Your task to perform on an android device: turn smart compose on in the gmail app Image 0: 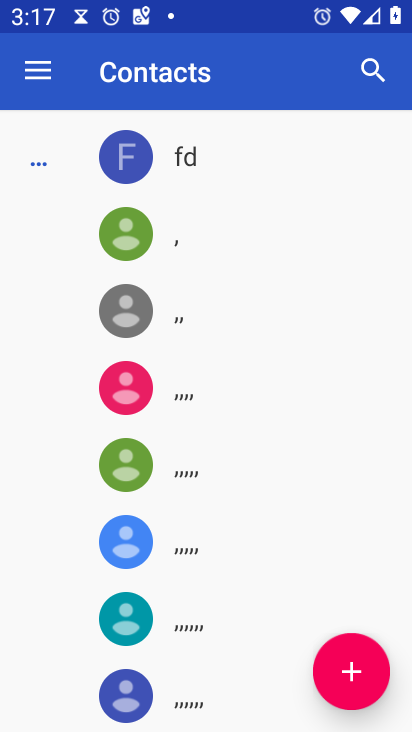
Step 0: press back button
Your task to perform on an android device: turn smart compose on in the gmail app Image 1: 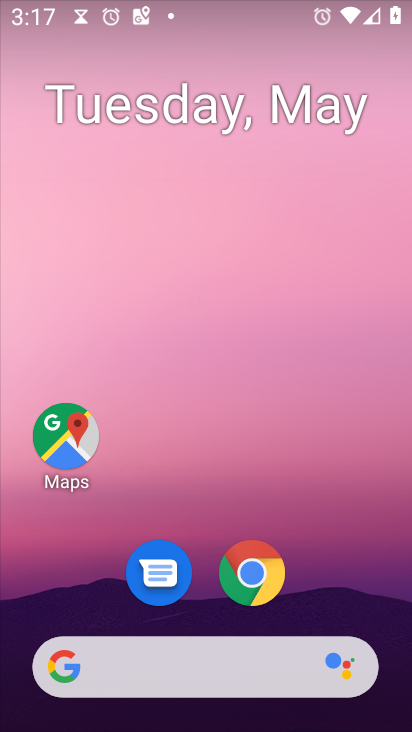
Step 1: drag from (326, 552) to (233, 27)
Your task to perform on an android device: turn smart compose on in the gmail app Image 2: 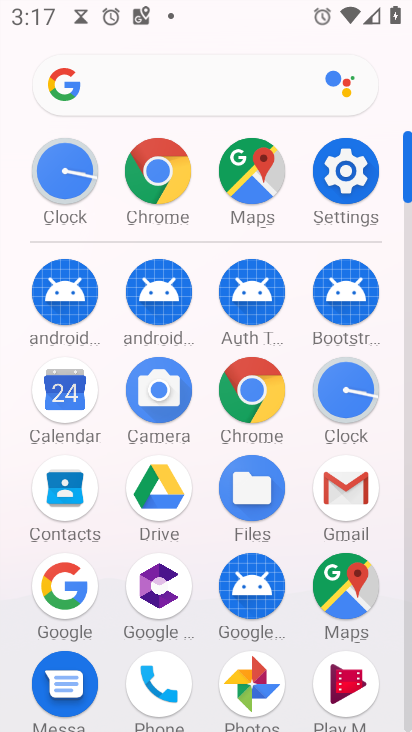
Step 2: drag from (10, 588) to (14, 289)
Your task to perform on an android device: turn smart compose on in the gmail app Image 3: 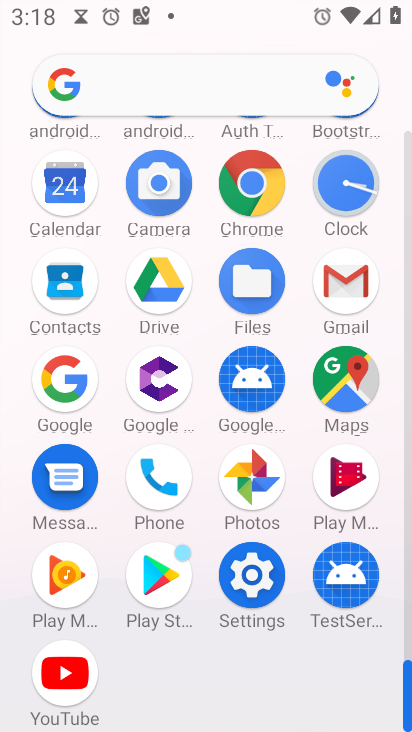
Step 3: click (346, 274)
Your task to perform on an android device: turn smart compose on in the gmail app Image 4: 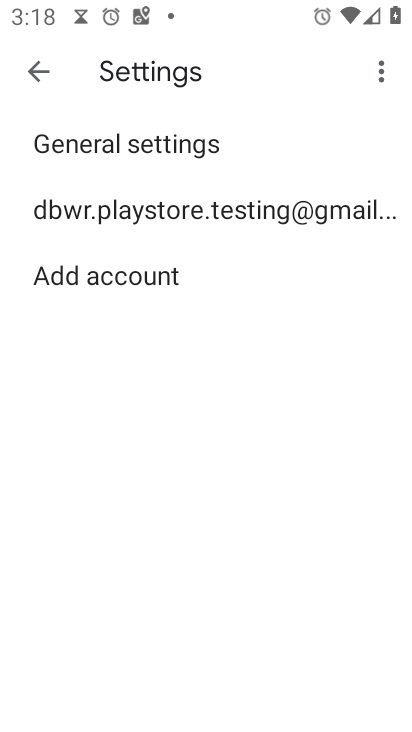
Step 4: click (198, 203)
Your task to perform on an android device: turn smart compose on in the gmail app Image 5: 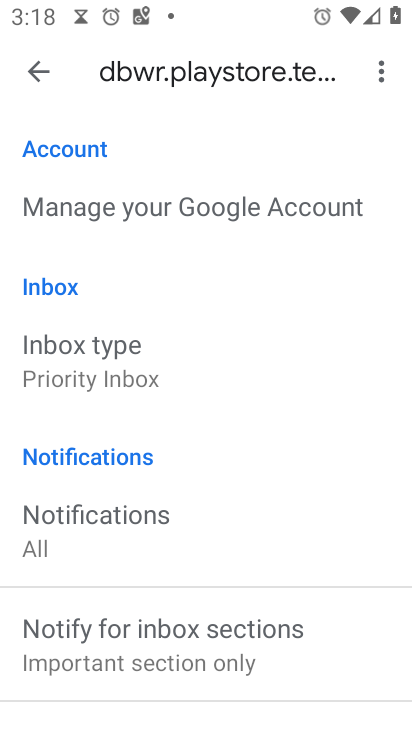
Step 5: click (165, 347)
Your task to perform on an android device: turn smart compose on in the gmail app Image 6: 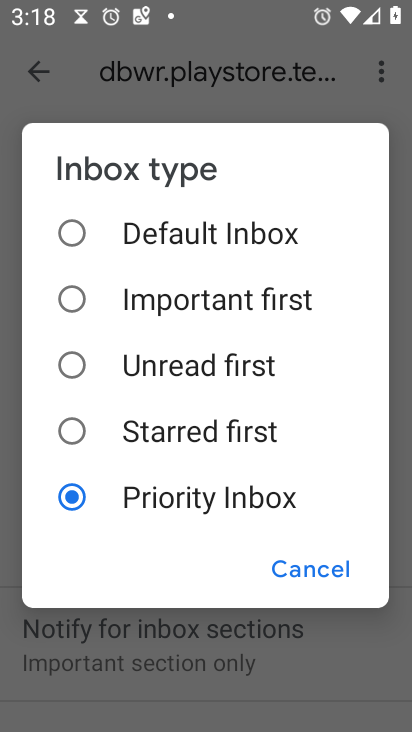
Step 6: click (159, 500)
Your task to perform on an android device: turn smart compose on in the gmail app Image 7: 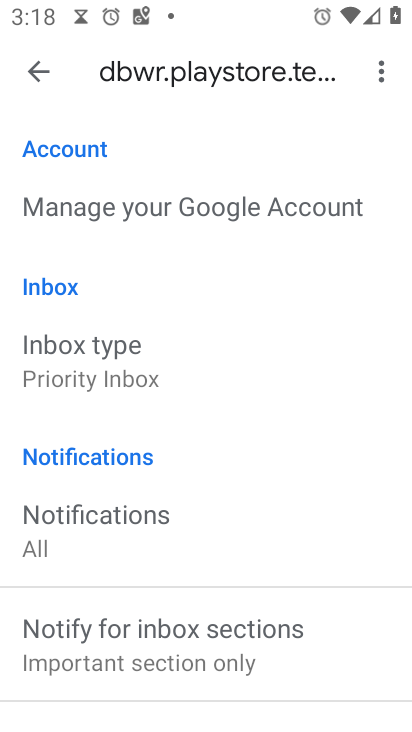
Step 7: task complete